Your task to perform on an android device: Go to network settings Image 0: 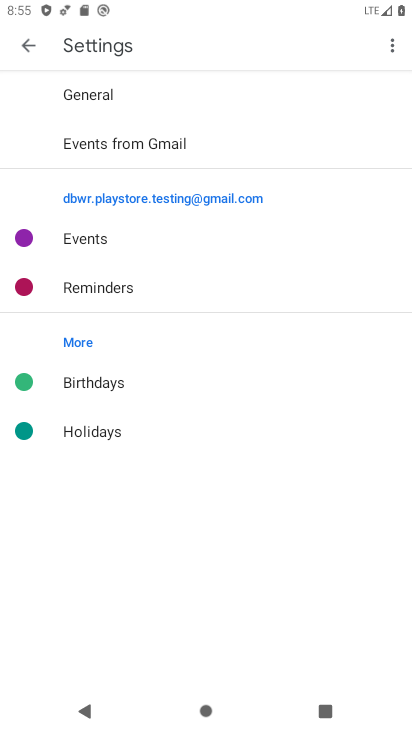
Step 0: press home button
Your task to perform on an android device: Go to network settings Image 1: 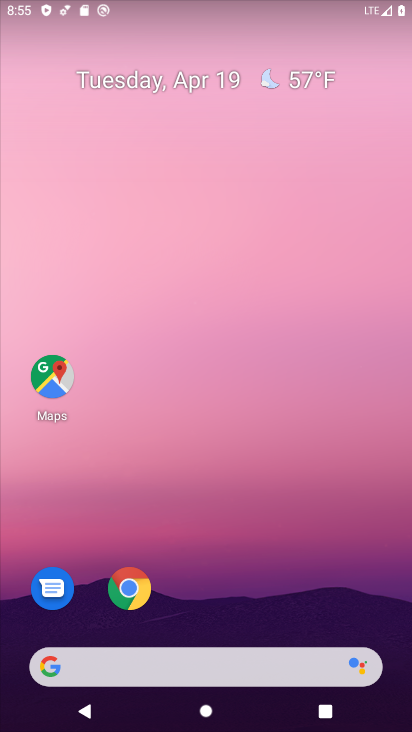
Step 1: drag from (220, 619) to (225, 62)
Your task to perform on an android device: Go to network settings Image 2: 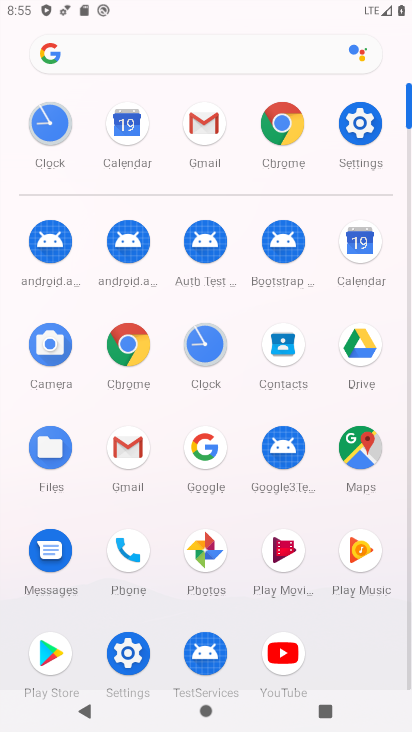
Step 2: click (356, 127)
Your task to perform on an android device: Go to network settings Image 3: 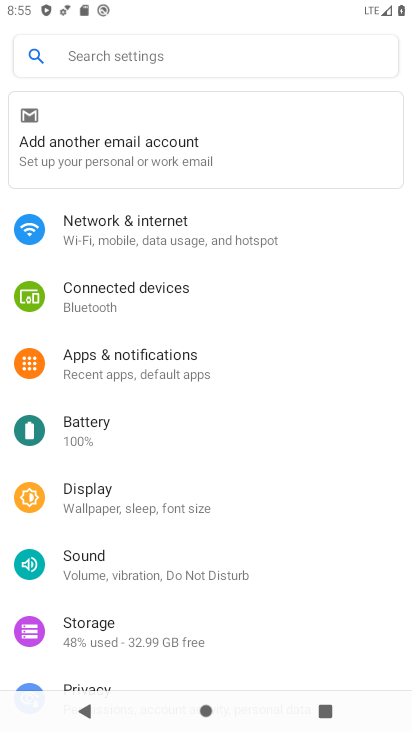
Step 3: click (177, 232)
Your task to perform on an android device: Go to network settings Image 4: 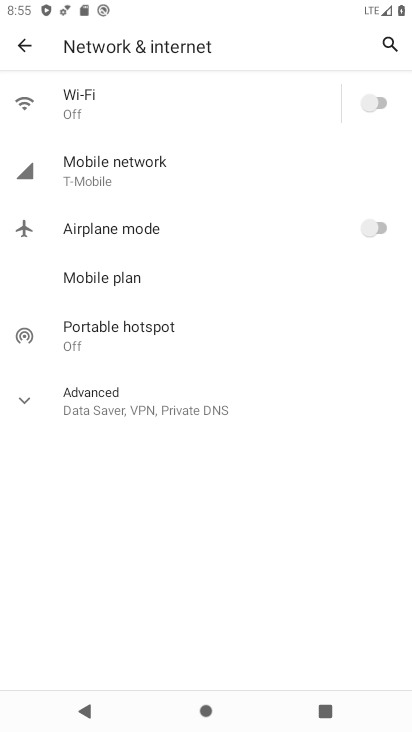
Step 4: click (144, 177)
Your task to perform on an android device: Go to network settings Image 5: 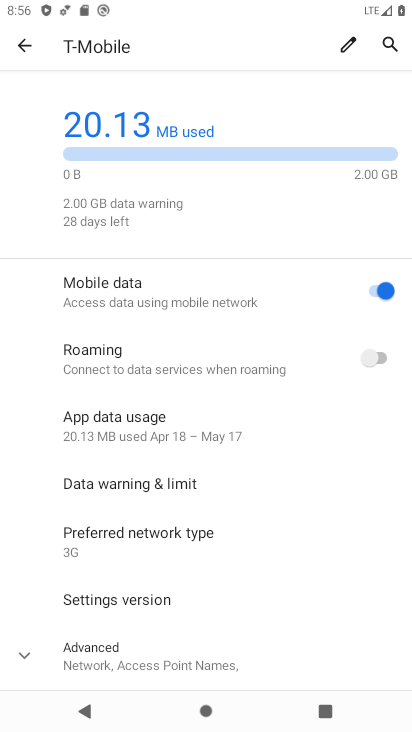
Step 5: task complete